Your task to perform on an android device: Go to Yahoo.com Image 0: 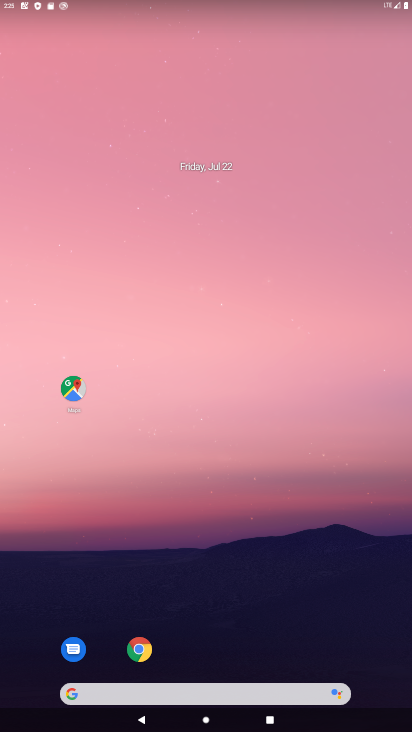
Step 0: drag from (213, 640) to (242, 122)
Your task to perform on an android device: Go to Yahoo.com Image 1: 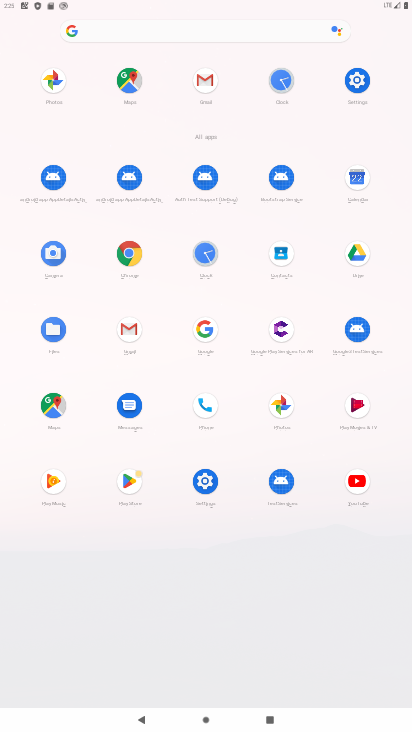
Step 1: click (167, 27)
Your task to perform on an android device: Go to Yahoo.com Image 2: 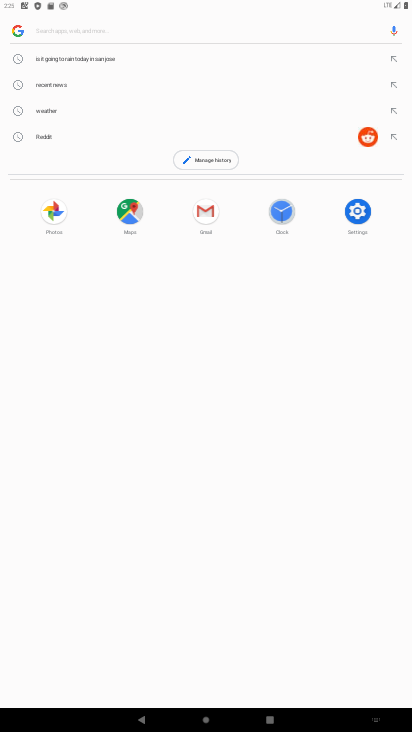
Step 2: click (308, 446)
Your task to perform on an android device: Go to Yahoo.com Image 3: 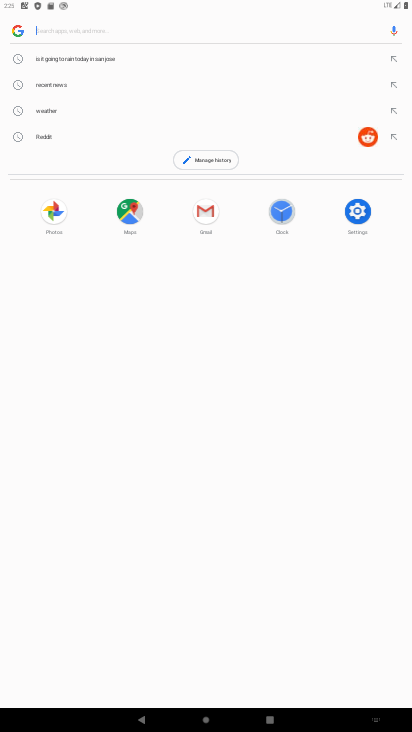
Step 3: type "Yahoo.com"
Your task to perform on an android device: Go to Yahoo.com Image 4: 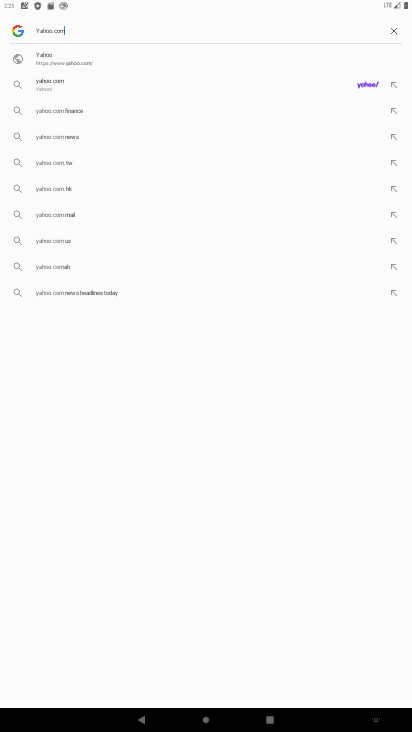
Step 4: click (75, 84)
Your task to perform on an android device: Go to Yahoo.com Image 5: 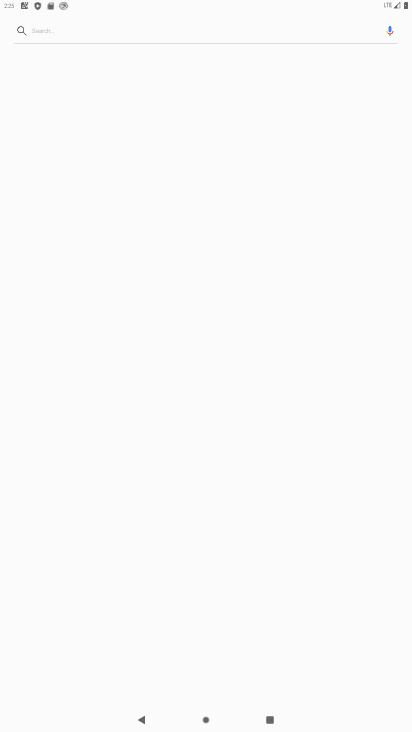
Step 5: task complete